Your task to perform on an android device: Open wifi settings Image 0: 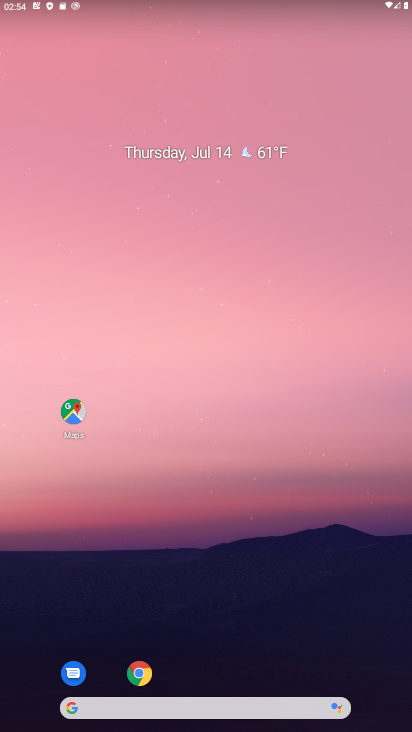
Step 0: drag from (324, 592) to (236, 141)
Your task to perform on an android device: Open wifi settings Image 1: 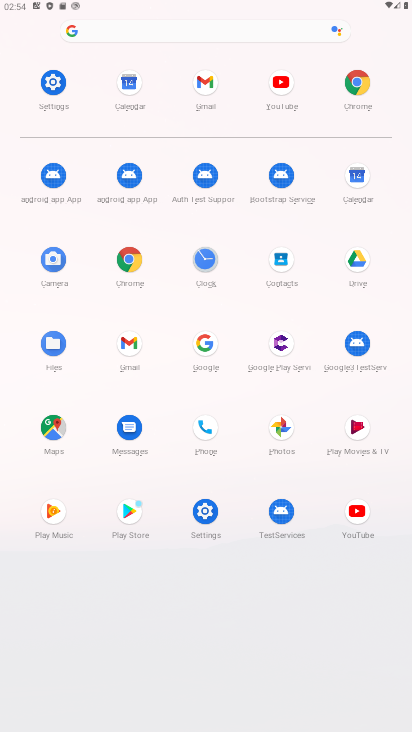
Step 1: click (68, 111)
Your task to perform on an android device: Open wifi settings Image 2: 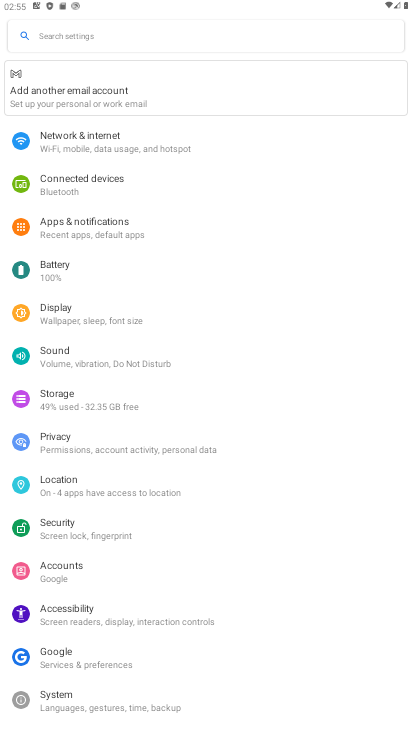
Step 2: click (135, 159)
Your task to perform on an android device: Open wifi settings Image 3: 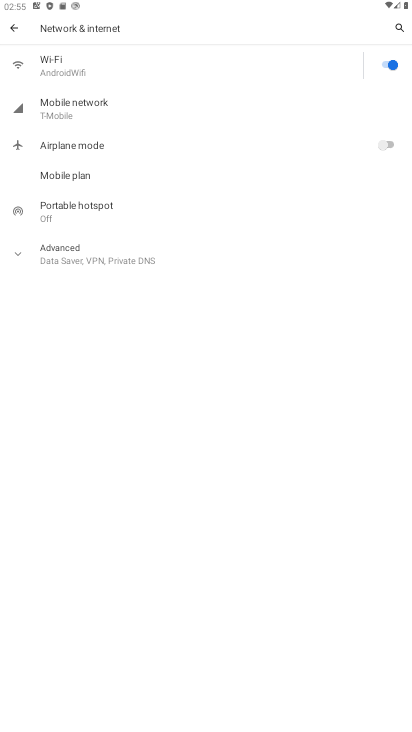
Step 3: task complete